Your task to perform on an android device: see sites visited before in the chrome app Image 0: 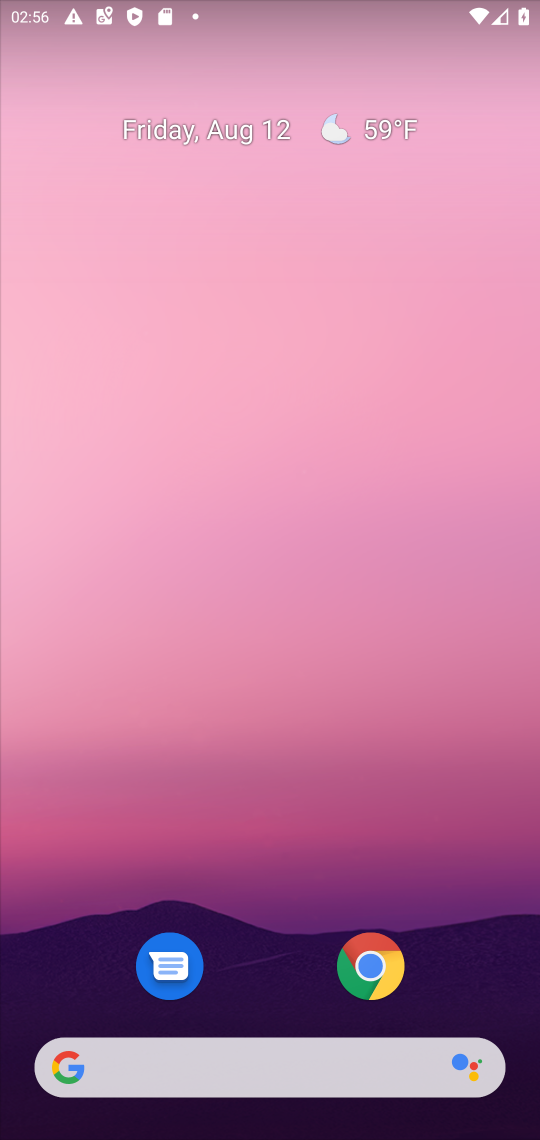
Step 0: drag from (213, 932) to (254, 213)
Your task to perform on an android device: see sites visited before in the chrome app Image 1: 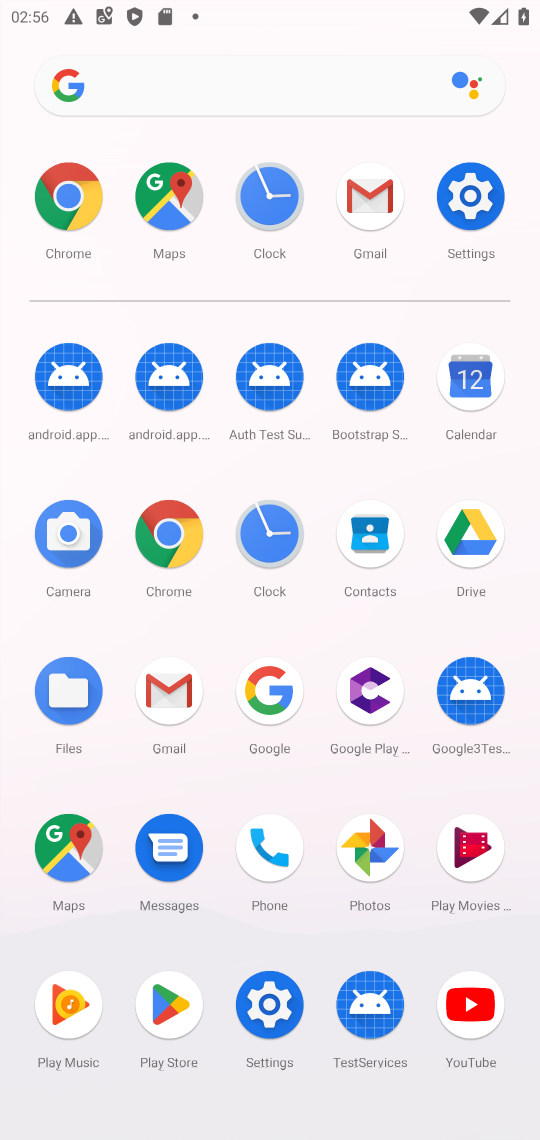
Step 1: click (171, 527)
Your task to perform on an android device: see sites visited before in the chrome app Image 2: 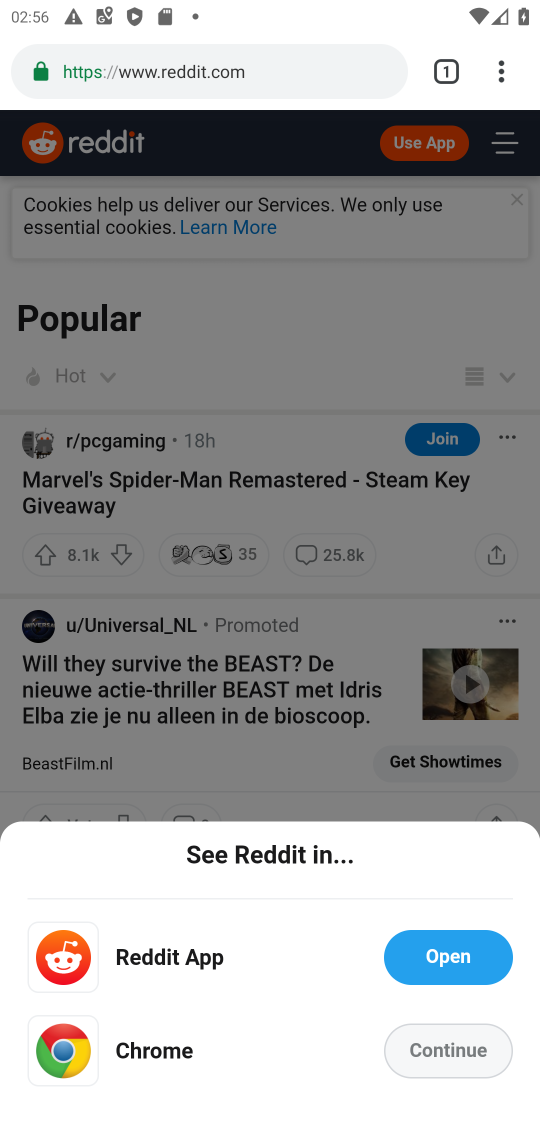
Step 2: task complete